Your task to perform on an android device: Clear the cart on amazon.com. Image 0: 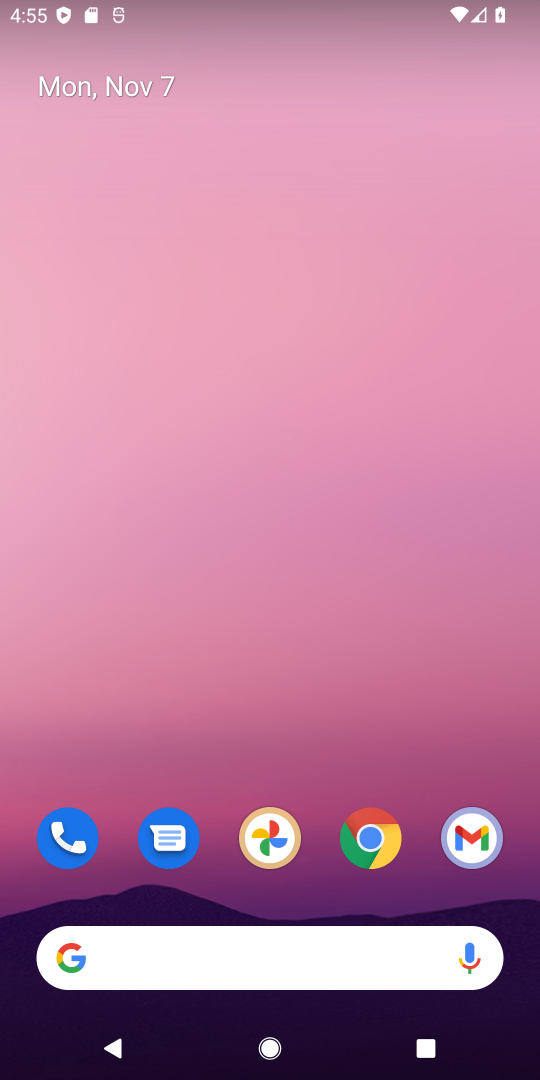
Step 0: click (376, 840)
Your task to perform on an android device: Clear the cart on amazon.com. Image 1: 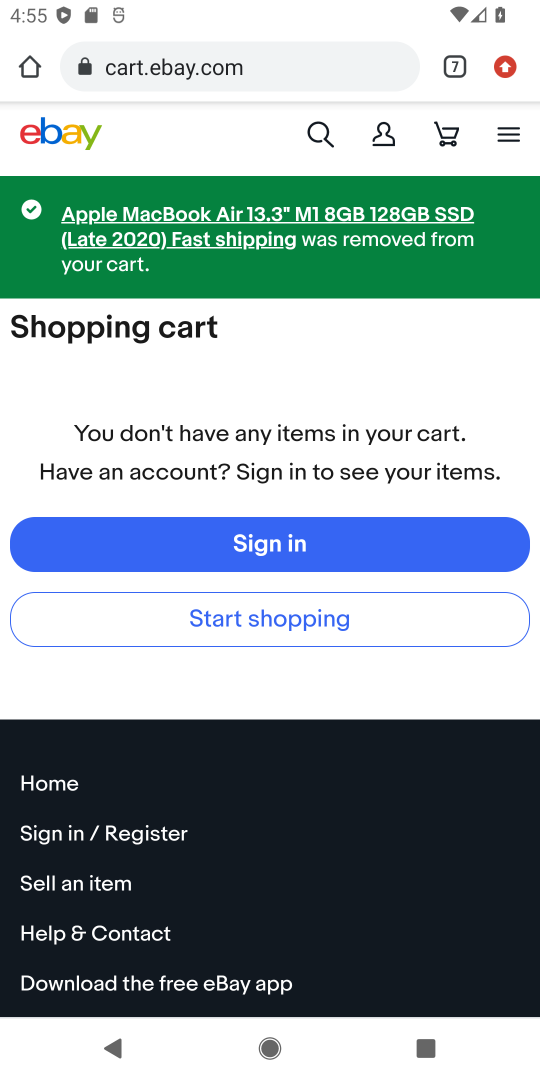
Step 1: click (452, 66)
Your task to perform on an android device: Clear the cart on amazon.com. Image 2: 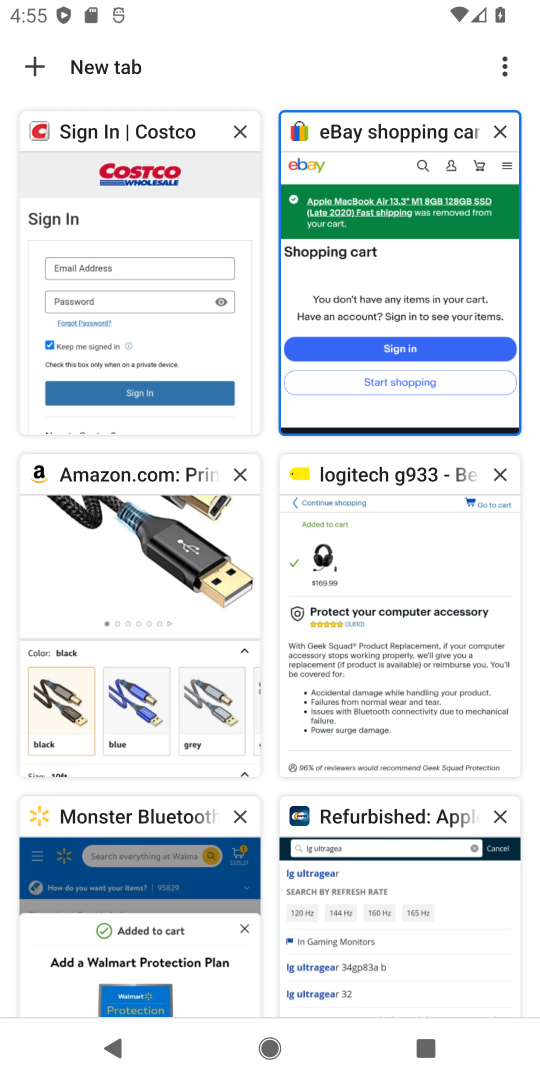
Step 2: click (193, 686)
Your task to perform on an android device: Clear the cart on amazon.com. Image 3: 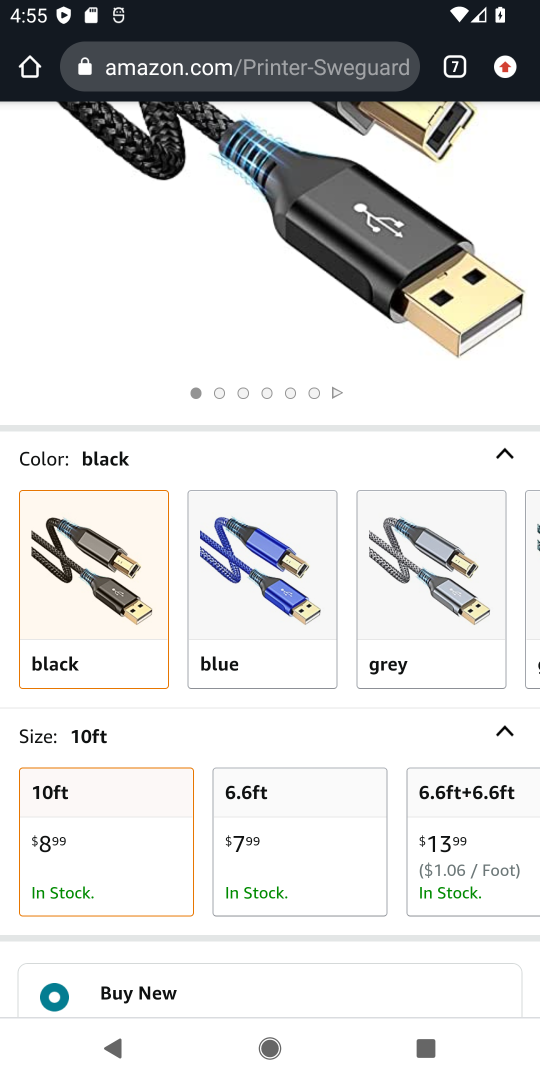
Step 3: drag from (466, 276) to (439, 885)
Your task to perform on an android device: Clear the cart on amazon.com. Image 4: 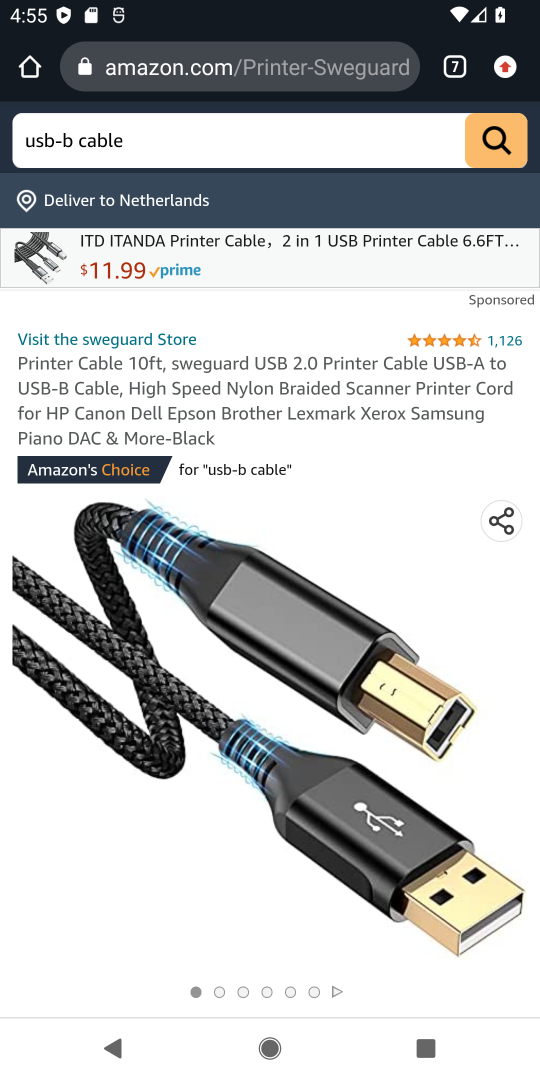
Step 4: drag from (439, 262) to (468, 756)
Your task to perform on an android device: Clear the cart on amazon.com. Image 5: 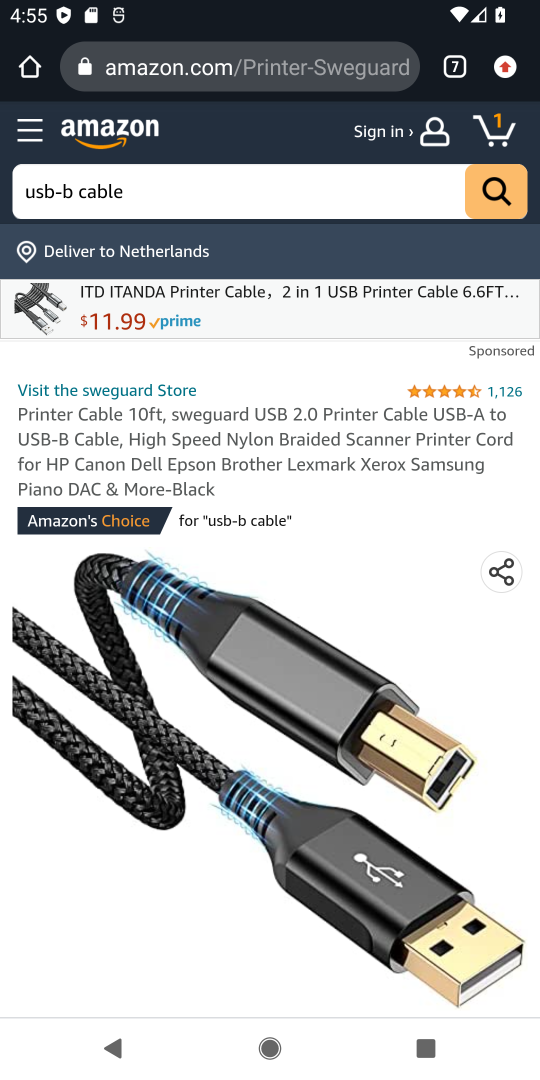
Step 5: click (500, 129)
Your task to perform on an android device: Clear the cart on amazon.com. Image 6: 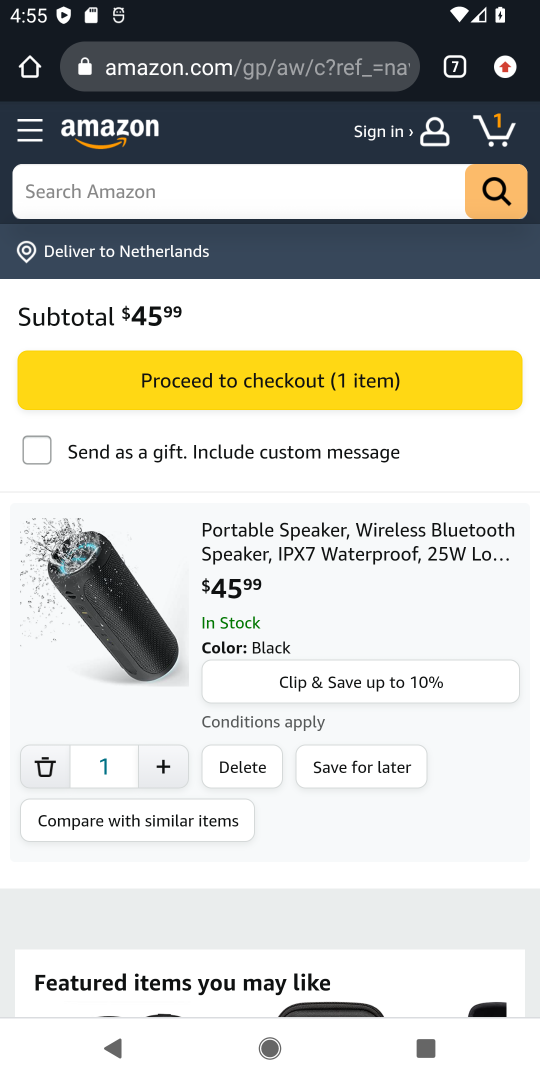
Step 6: click (38, 772)
Your task to perform on an android device: Clear the cart on amazon.com. Image 7: 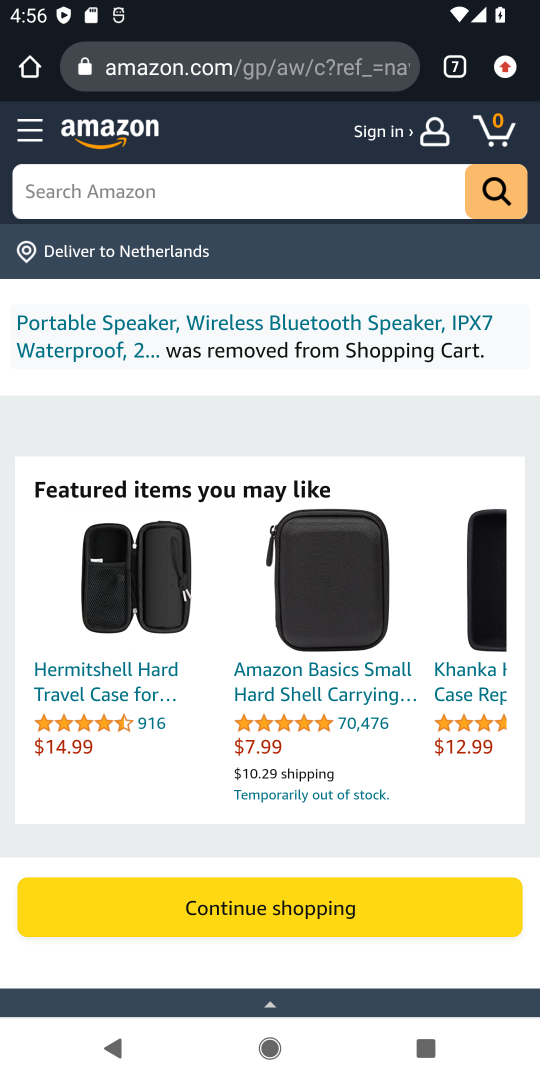
Step 7: task complete